Your task to perform on an android device: Clear all items from cart on bestbuy. Search for "macbook pro 15 inch" on bestbuy, select the first entry, add it to the cart, then select checkout. Image 0: 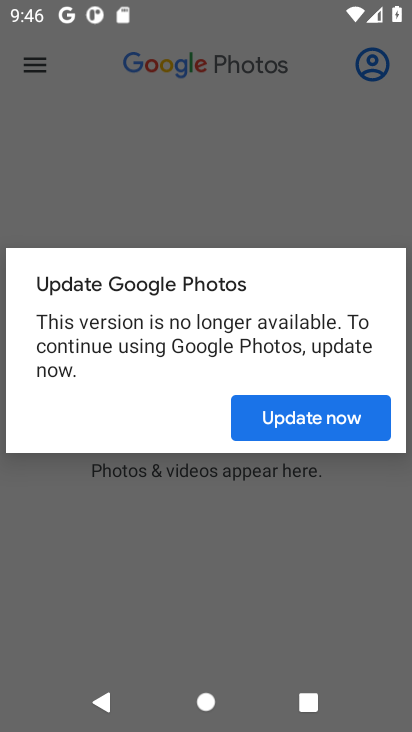
Step 0: press home button
Your task to perform on an android device: Clear all items from cart on bestbuy. Search for "macbook pro 15 inch" on bestbuy, select the first entry, add it to the cart, then select checkout. Image 1: 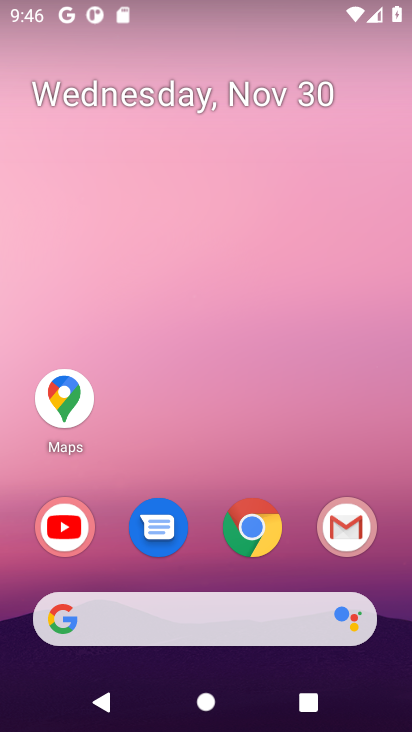
Step 1: click (249, 515)
Your task to perform on an android device: Clear all items from cart on bestbuy. Search for "macbook pro 15 inch" on bestbuy, select the first entry, add it to the cart, then select checkout. Image 2: 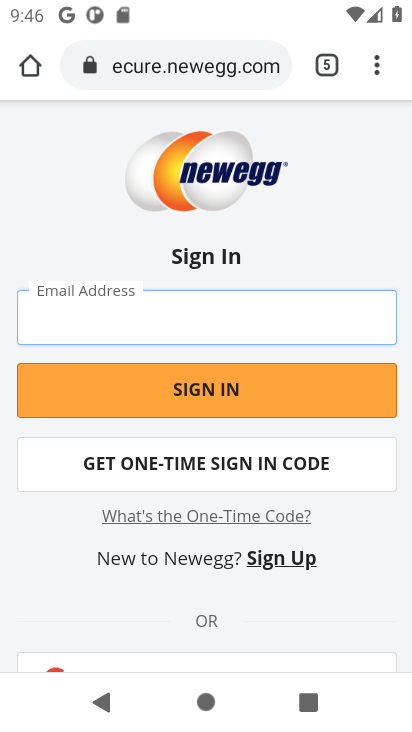
Step 2: click (226, 58)
Your task to perform on an android device: Clear all items from cart on bestbuy. Search for "macbook pro 15 inch" on bestbuy, select the first entry, add it to the cart, then select checkout. Image 3: 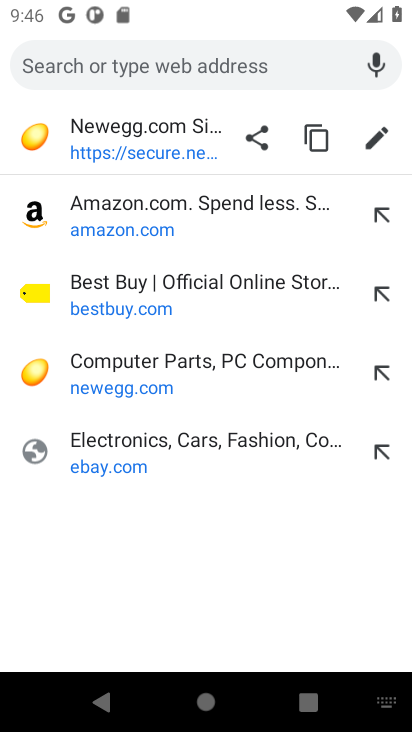
Step 3: click (142, 281)
Your task to perform on an android device: Clear all items from cart on bestbuy. Search for "macbook pro 15 inch" on bestbuy, select the first entry, add it to the cart, then select checkout. Image 4: 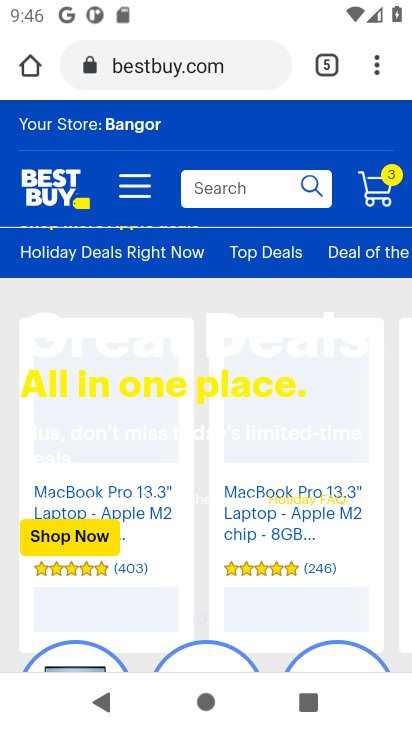
Step 4: click (372, 189)
Your task to perform on an android device: Clear all items from cart on bestbuy. Search for "macbook pro 15 inch" on bestbuy, select the first entry, add it to the cart, then select checkout. Image 5: 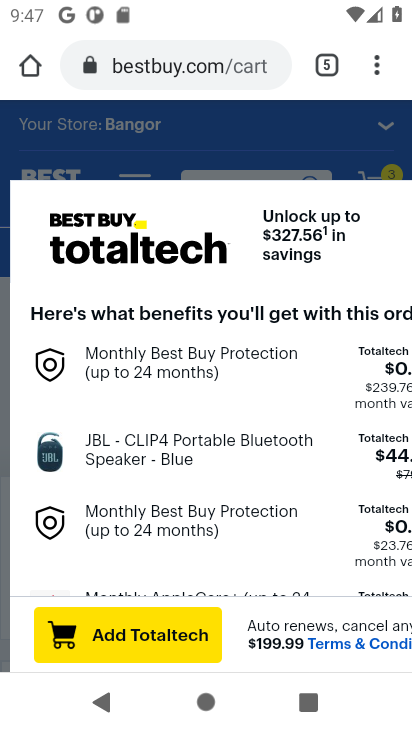
Step 5: click (250, 135)
Your task to perform on an android device: Clear all items from cart on bestbuy. Search for "macbook pro 15 inch" on bestbuy, select the first entry, add it to the cart, then select checkout. Image 6: 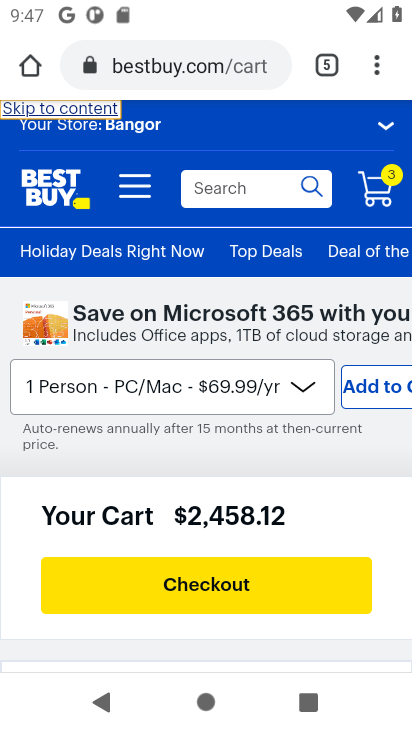
Step 6: drag from (354, 494) to (391, 65)
Your task to perform on an android device: Clear all items from cart on bestbuy. Search for "macbook pro 15 inch" on bestbuy, select the first entry, add it to the cart, then select checkout. Image 7: 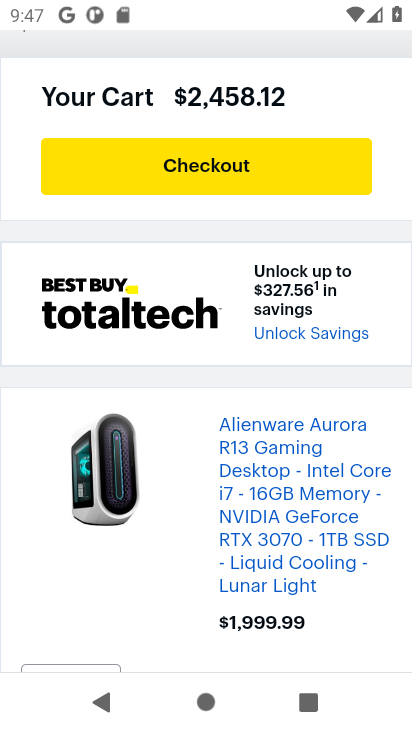
Step 7: drag from (344, 622) to (340, 124)
Your task to perform on an android device: Clear all items from cart on bestbuy. Search for "macbook pro 15 inch" on bestbuy, select the first entry, add it to the cart, then select checkout. Image 8: 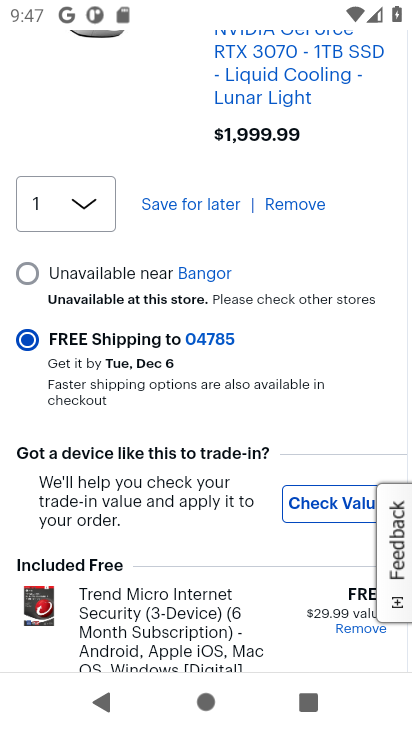
Step 8: click (298, 198)
Your task to perform on an android device: Clear all items from cart on bestbuy. Search for "macbook pro 15 inch" on bestbuy, select the first entry, add it to the cart, then select checkout. Image 9: 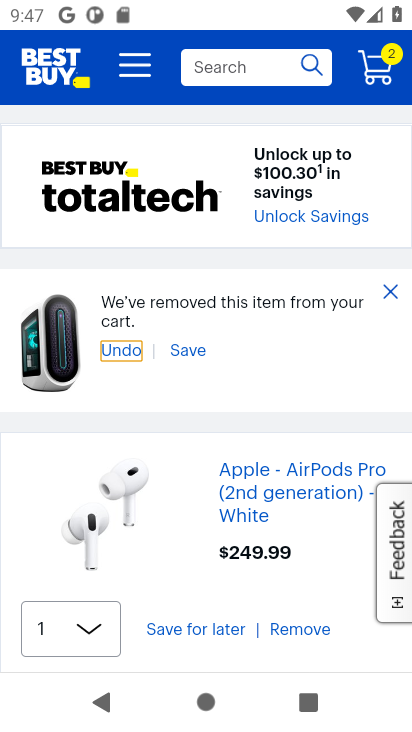
Step 9: click (385, 287)
Your task to perform on an android device: Clear all items from cart on bestbuy. Search for "macbook pro 15 inch" on bestbuy, select the first entry, add it to the cart, then select checkout. Image 10: 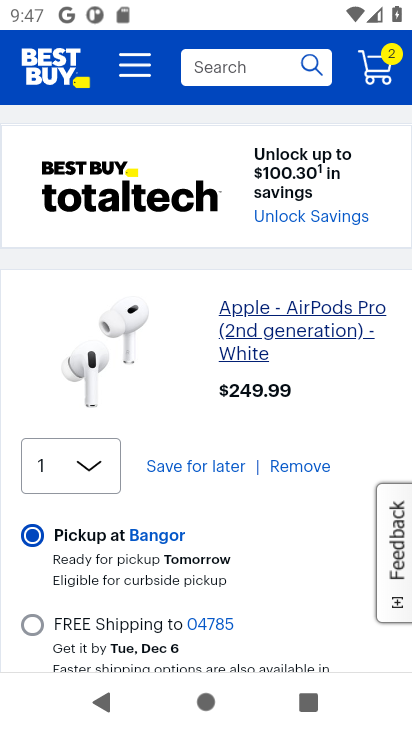
Step 10: click (293, 628)
Your task to perform on an android device: Clear all items from cart on bestbuy. Search for "macbook pro 15 inch" on bestbuy, select the first entry, add it to the cart, then select checkout. Image 11: 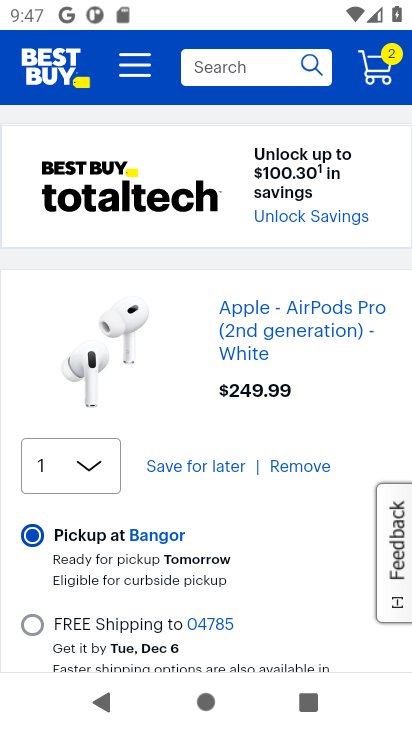
Step 11: click (312, 458)
Your task to perform on an android device: Clear all items from cart on bestbuy. Search for "macbook pro 15 inch" on bestbuy, select the first entry, add it to the cart, then select checkout. Image 12: 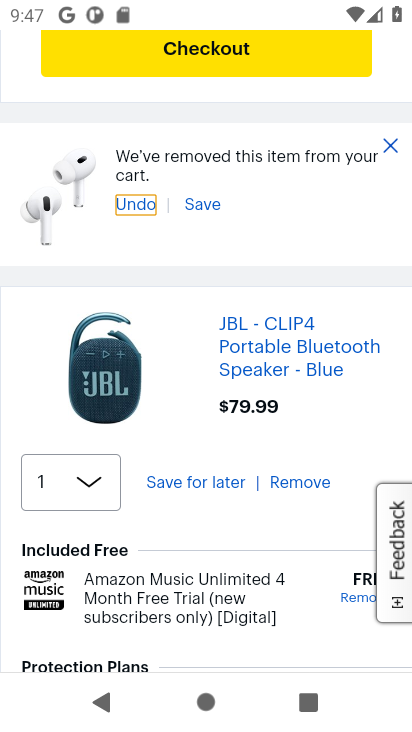
Step 12: click (311, 478)
Your task to perform on an android device: Clear all items from cart on bestbuy. Search for "macbook pro 15 inch" on bestbuy, select the first entry, add it to the cart, then select checkout. Image 13: 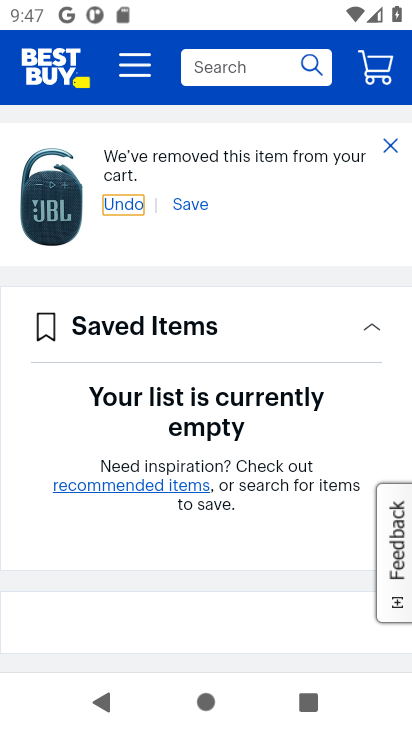
Step 13: click (390, 137)
Your task to perform on an android device: Clear all items from cart on bestbuy. Search for "macbook pro 15 inch" on bestbuy, select the first entry, add it to the cart, then select checkout. Image 14: 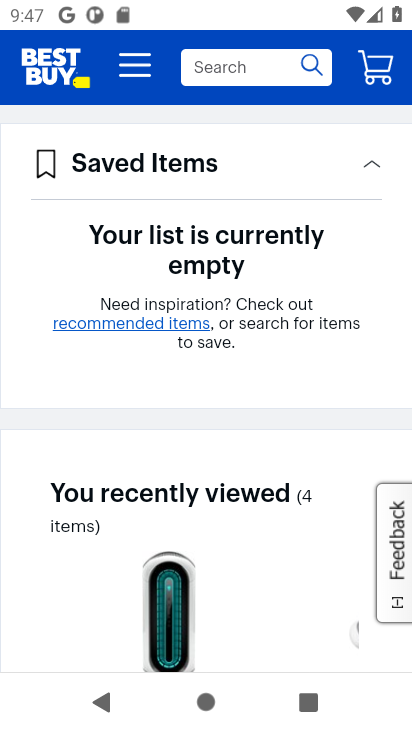
Step 14: click (264, 65)
Your task to perform on an android device: Clear all items from cart on bestbuy. Search for "macbook pro 15 inch" on bestbuy, select the first entry, add it to the cart, then select checkout. Image 15: 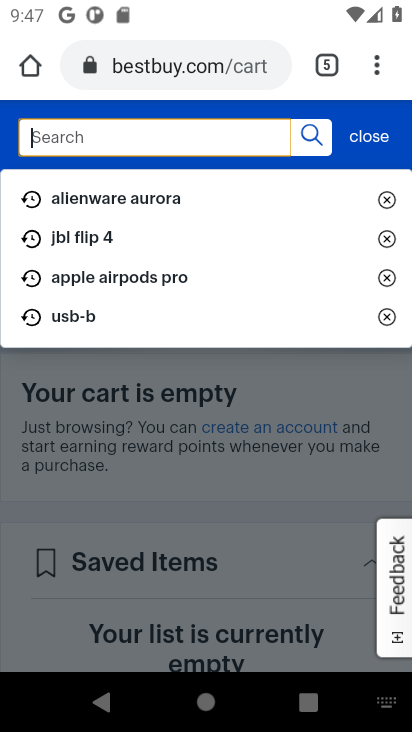
Step 15: type "macbook pro 15 inch"
Your task to perform on an android device: Clear all items from cart on bestbuy. Search for "macbook pro 15 inch" on bestbuy, select the first entry, add it to the cart, then select checkout. Image 16: 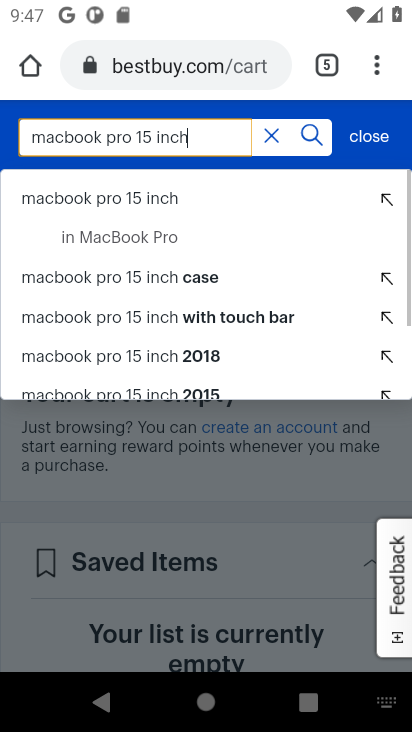
Step 16: press enter
Your task to perform on an android device: Clear all items from cart on bestbuy. Search for "macbook pro 15 inch" on bestbuy, select the first entry, add it to the cart, then select checkout. Image 17: 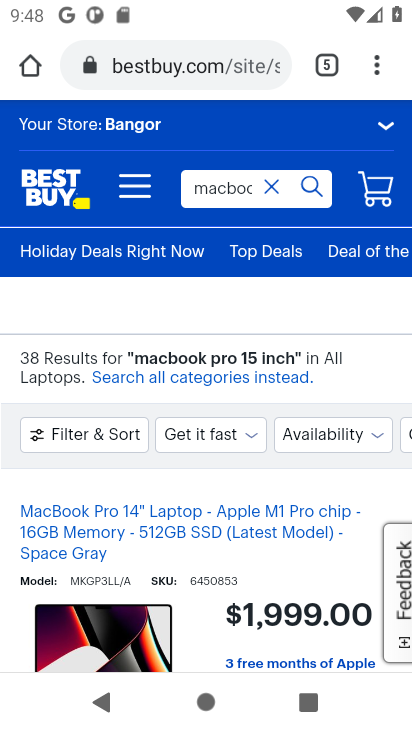
Step 17: drag from (227, 545) to (296, 103)
Your task to perform on an android device: Clear all items from cart on bestbuy. Search for "macbook pro 15 inch" on bestbuy, select the first entry, add it to the cart, then select checkout. Image 18: 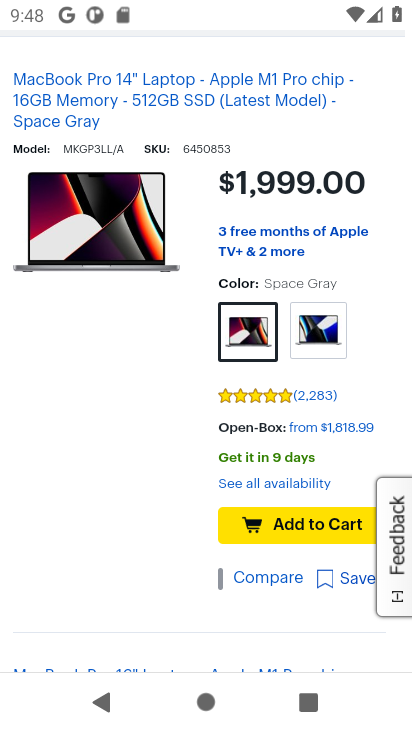
Step 18: drag from (129, 567) to (162, 228)
Your task to perform on an android device: Clear all items from cart on bestbuy. Search for "macbook pro 15 inch" on bestbuy, select the first entry, add it to the cart, then select checkout. Image 19: 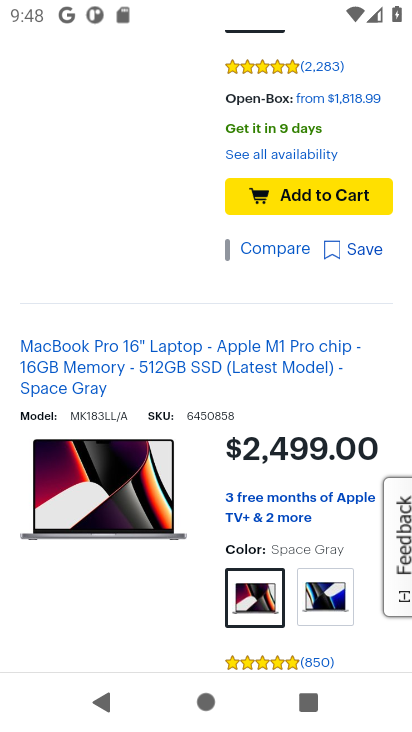
Step 19: drag from (191, 611) to (268, 73)
Your task to perform on an android device: Clear all items from cart on bestbuy. Search for "macbook pro 15 inch" on bestbuy, select the first entry, add it to the cart, then select checkout. Image 20: 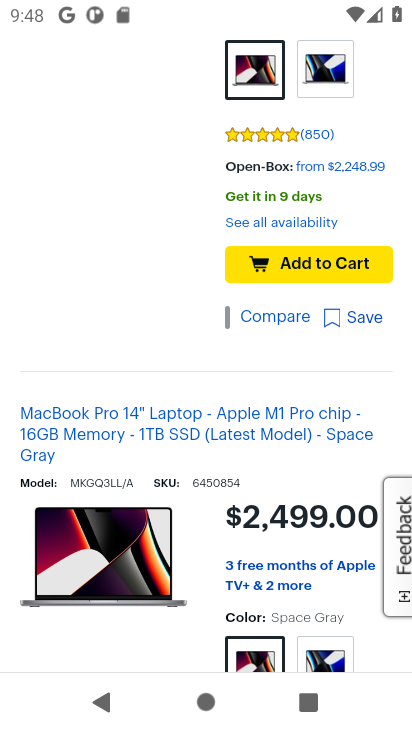
Step 20: drag from (197, 563) to (222, 134)
Your task to perform on an android device: Clear all items from cart on bestbuy. Search for "macbook pro 15 inch" on bestbuy, select the first entry, add it to the cart, then select checkout. Image 21: 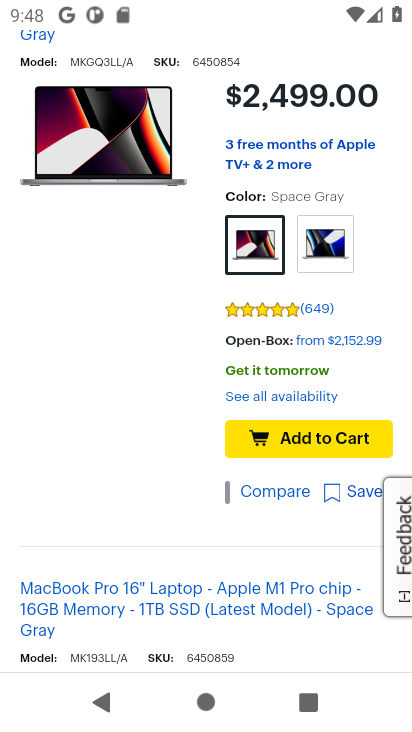
Step 21: drag from (245, 554) to (388, 58)
Your task to perform on an android device: Clear all items from cart on bestbuy. Search for "macbook pro 15 inch" on bestbuy, select the first entry, add it to the cart, then select checkout. Image 22: 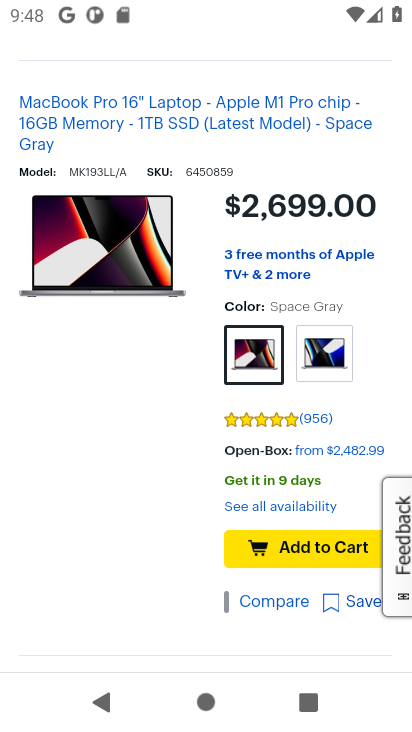
Step 22: drag from (162, 564) to (217, 114)
Your task to perform on an android device: Clear all items from cart on bestbuy. Search for "macbook pro 15 inch" on bestbuy, select the first entry, add it to the cart, then select checkout. Image 23: 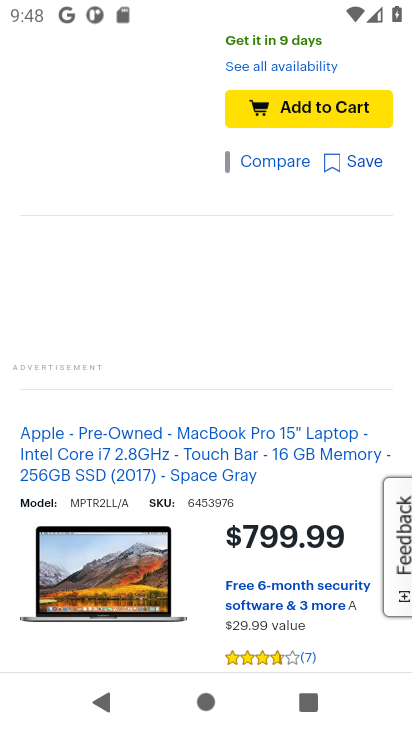
Step 23: click (141, 569)
Your task to perform on an android device: Clear all items from cart on bestbuy. Search for "macbook pro 15 inch" on bestbuy, select the first entry, add it to the cart, then select checkout. Image 24: 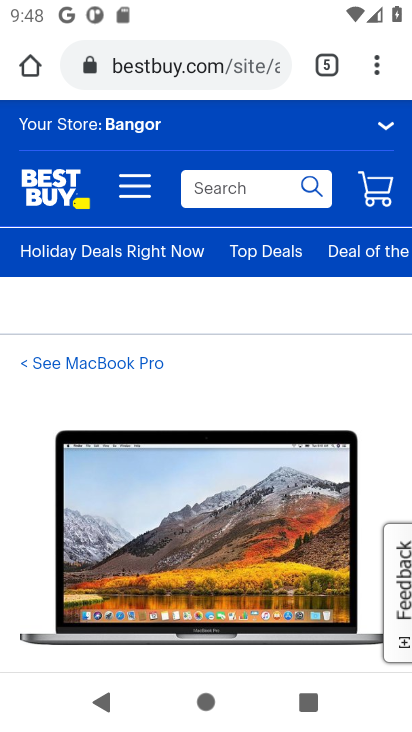
Step 24: drag from (375, 488) to (410, 164)
Your task to perform on an android device: Clear all items from cart on bestbuy. Search for "macbook pro 15 inch" on bestbuy, select the first entry, add it to the cart, then select checkout. Image 25: 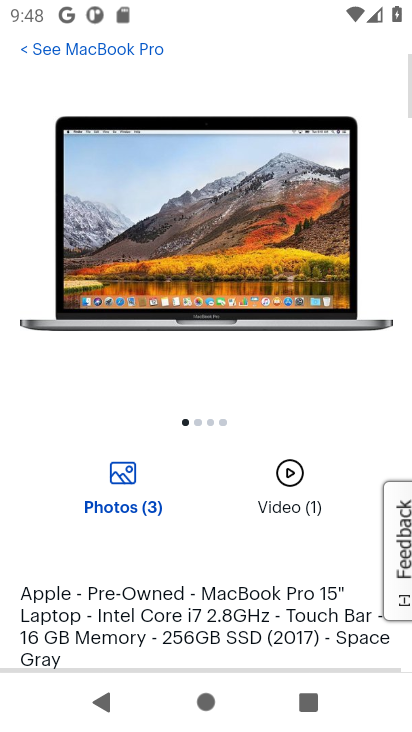
Step 25: drag from (230, 510) to (300, 12)
Your task to perform on an android device: Clear all items from cart on bestbuy. Search for "macbook pro 15 inch" on bestbuy, select the first entry, add it to the cart, then select checkout. Image 26: 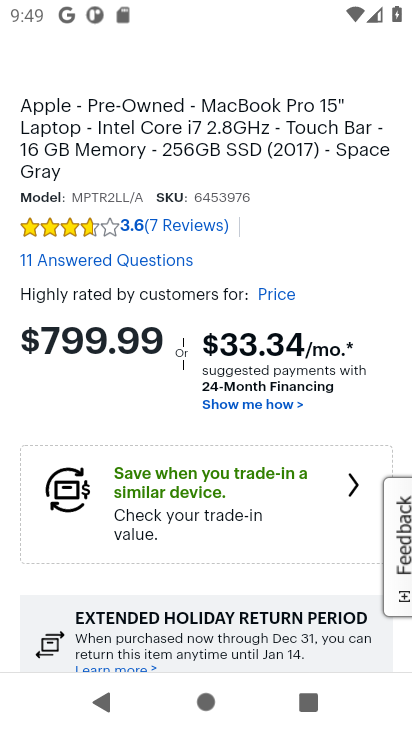
Step 26: drag from (237, 578) to (274, 63)
Your task to perform on an android device: Clear all items from cart on bestbuy. Search for "macbook pro 15 inch" on bestbuy, select the first entry, add it to the cart, then select checkout. Image 27: 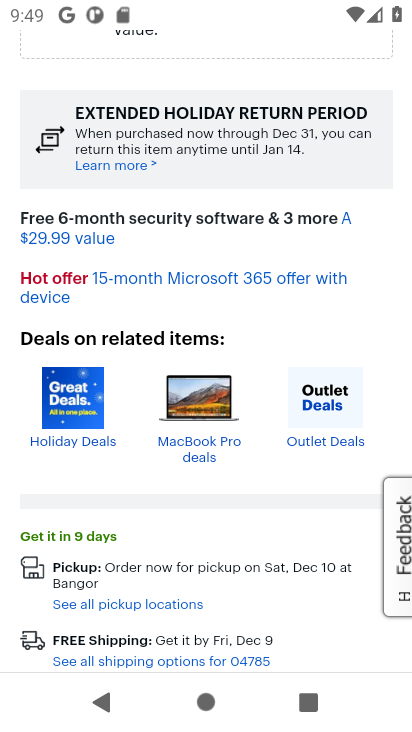
Step 27: drag from (238, 520) to (298, 117)
Your task to perform on an android device: Clear all items from cart on bestbuy. Search for "macbook pro 15 inch" on bestbuy, select the first entry, add it to the cart, then select checkout. Image 28: 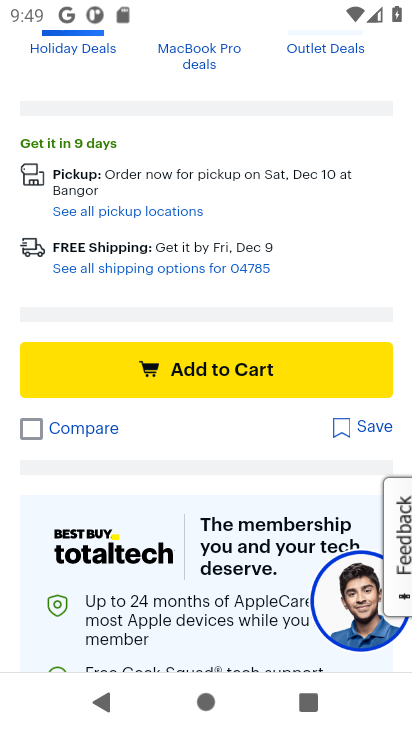
Step 28: click (237, 364)
Your task to perform on an android device: Clear all items from cart on bestbuy. Search for "macbook pro 15 inch" on bestbuy, select the first entry, add it to the cart, then select checkout. Image 29: 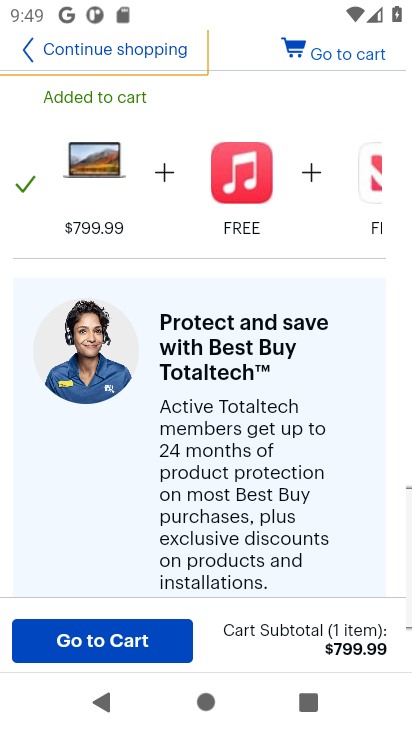
Step 29: click (135, 642)
Your task to perform on an android device: Clear all items from cart on bestbuy. Search for "macbook pro 15 inch" on bestbuy, select the first entry, add it to the cart, then select checkout. Image 30: 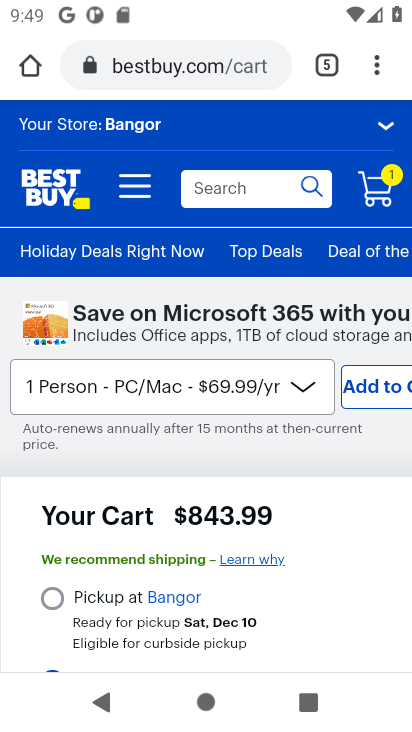
Step 30: drag from (358, 506) to (402, 101)
Your task to perform on an android device: Clear all items from cart on bestbuy. Search for "macbook pro 15 inch" on bestbuy, select the first entry, add it to the cart, then select checkout. Image 31: 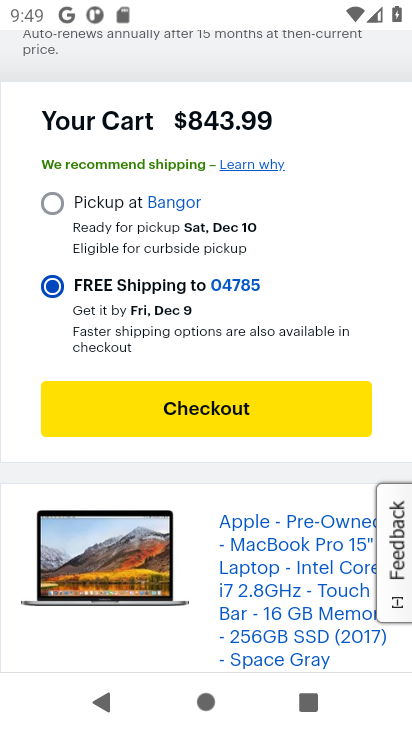
Step 31: click (230, 404)
Your task to perform on an android device: Clear all items from cart on bestbuy. Search for "macbook pro 15 inch" on bestbuy, select the first entry, add it to the cart, then select checkout. Image 32: 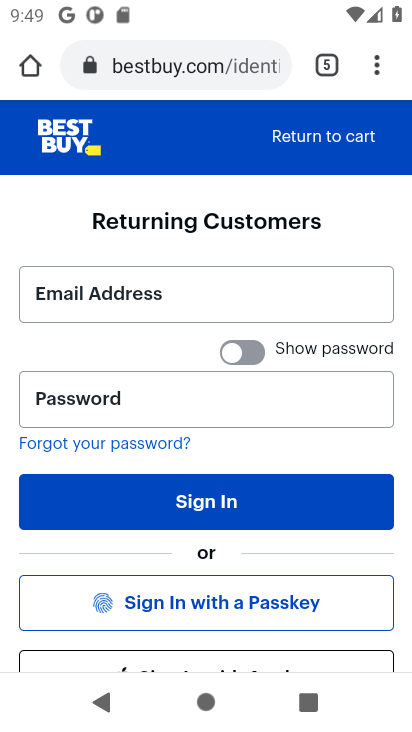
Step 32: task complete